Your task to perform on an android device: visit the assistant section in the google photos Image 0: 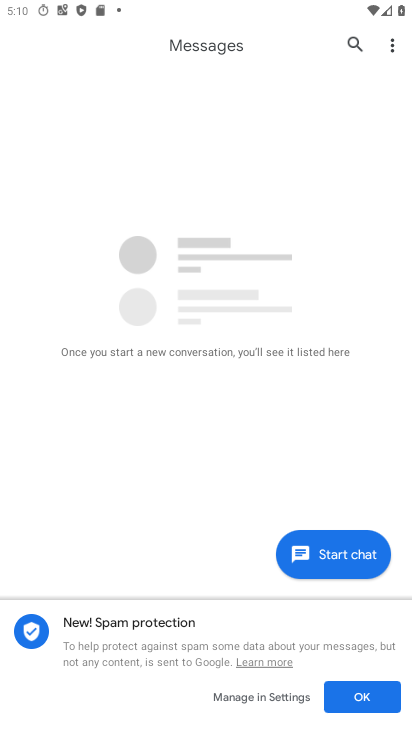
Step 0: press home button
Your task to perform on an android device: visit the assistant section in the google photos Image 1: 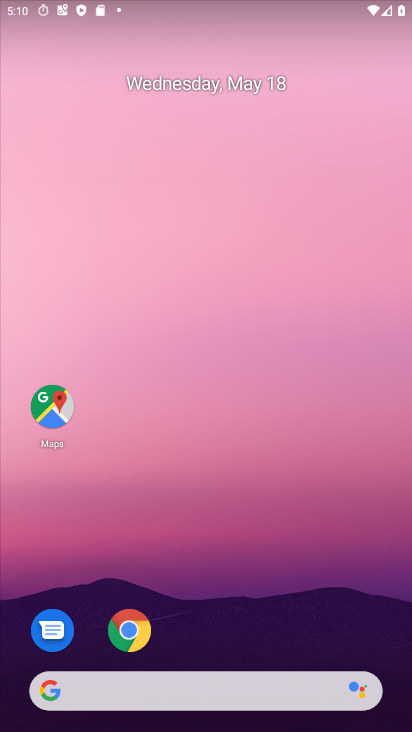
Step 1: drag from (200, 602) to (200, 267)
Your task to perform on an android device: visit the assistant section in the google photos Image 2: 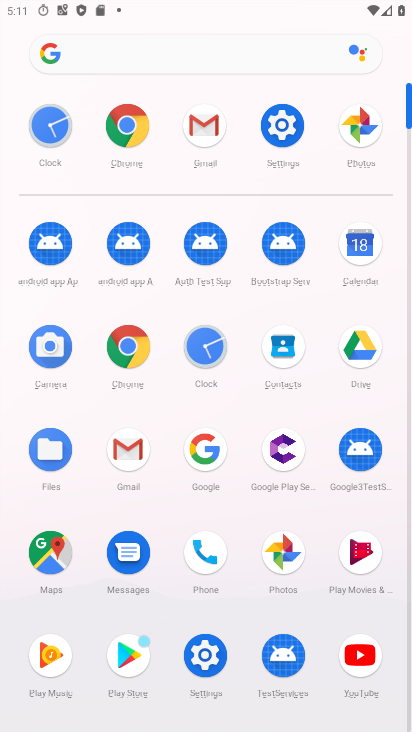
Step 2: click (351, 139)
Your task to perform on an android device: visit the assistant section in the google photos Image 3: 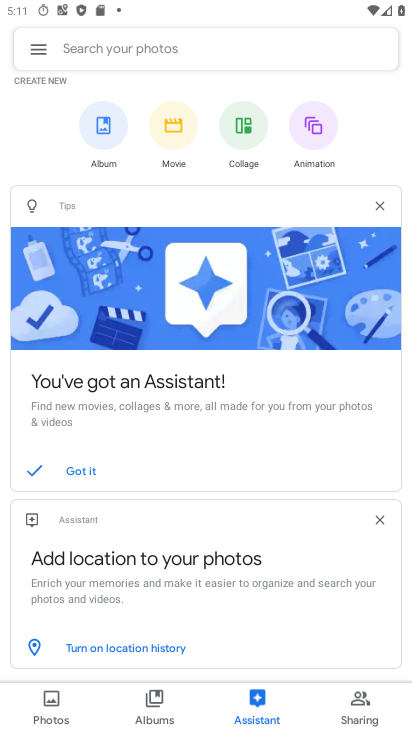
Step 3: task complete